Your task to perform on an android device: Toggle the flashlight Image 0: 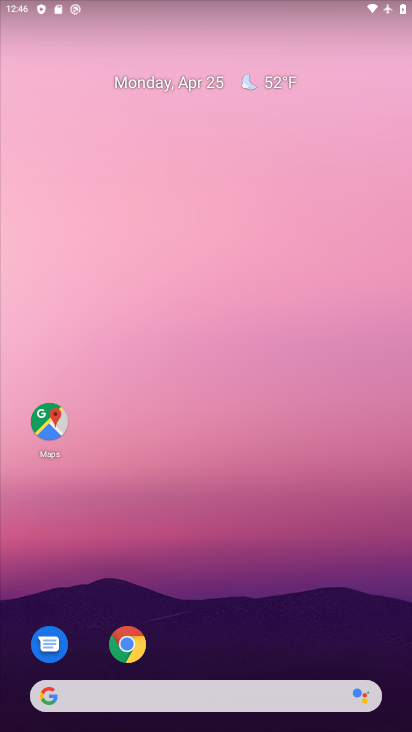
Step 0: drag from (194, 629) to (307, 171)
Your task to perform on an android device: Toggle the flashlight Image 1: 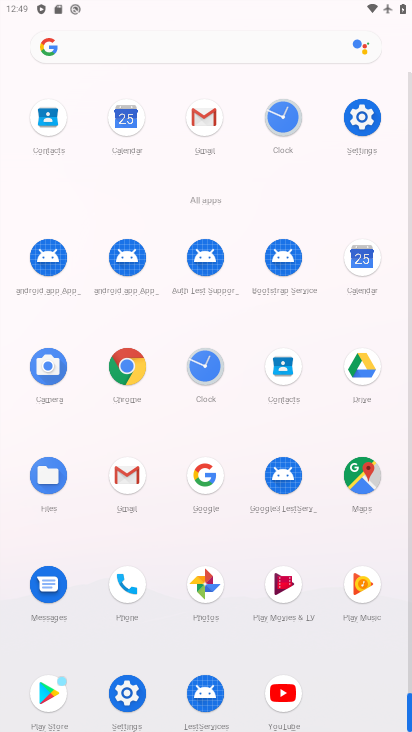
Step 1: click (357, 148)
Your task to perform on an android device: Toggle the flashlight Image 2: 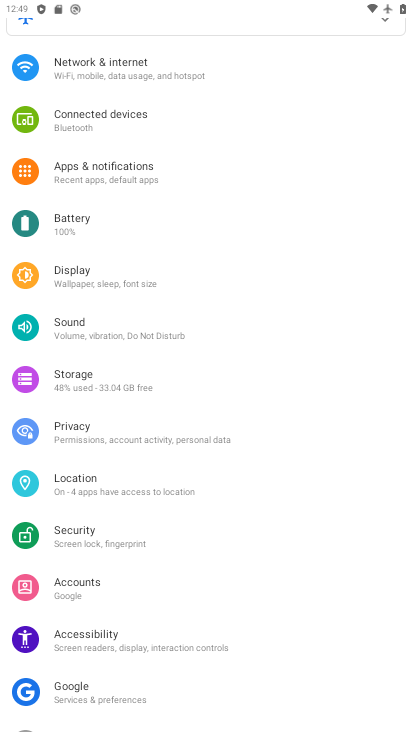
Step 2: task complete